Your task to perform on an android device: change alarm snooze length Image 0: 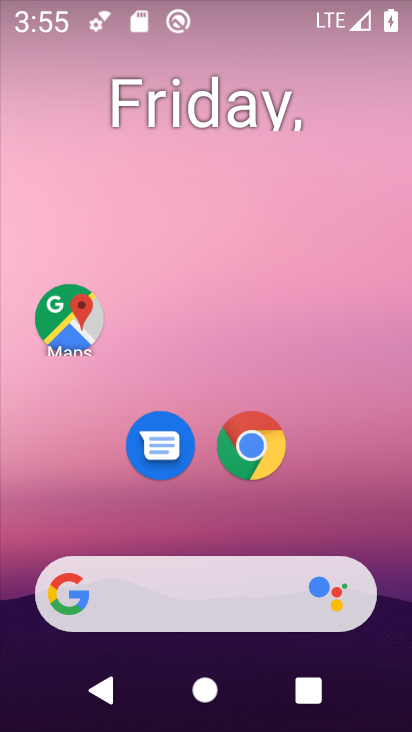
Step 0: drag from (399, 594) to (351, 293)
Your task to perform on an android device: change alarm snooze length Image 1: 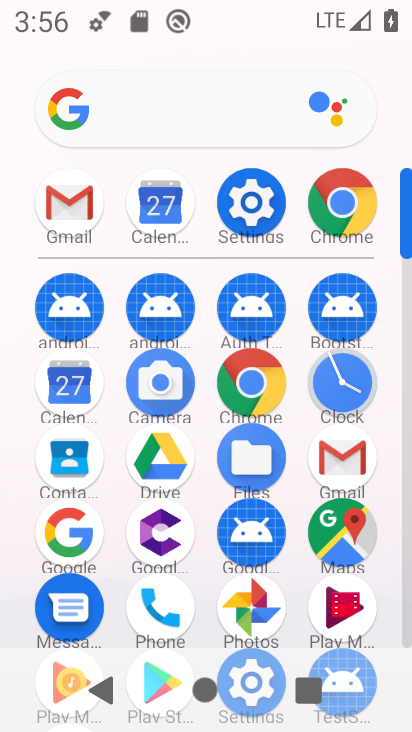
Step 1: click (345, 390)
Your task to perform on an android device: change alarm snooze length Image 2: 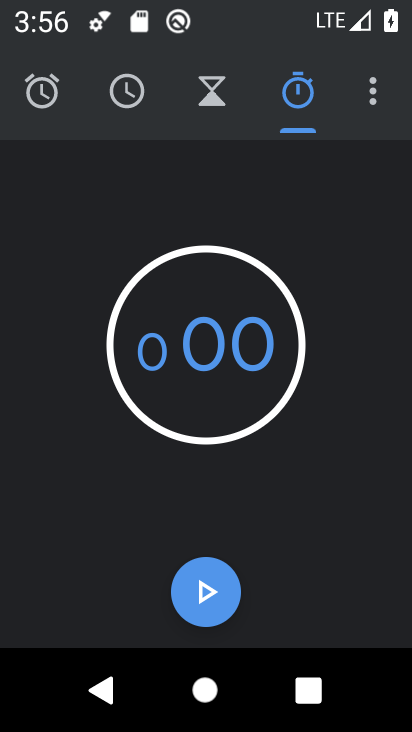
Step 2: click (383, 95)
Your task to perform on an android device: change alarm snooze length Image 3: 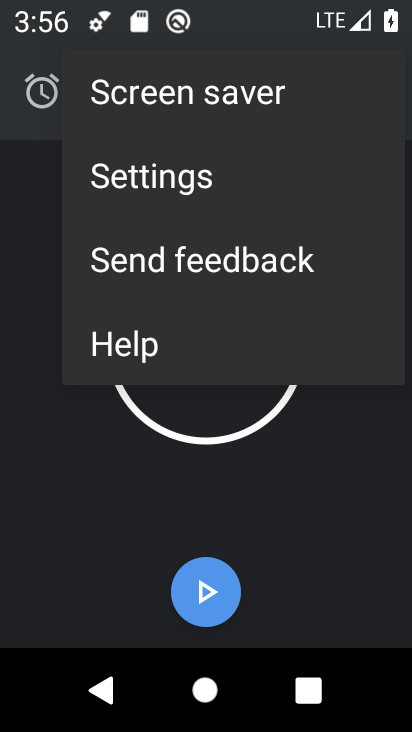
Step 3: click (290, 169)
Your task to perform on an android device: change alarm snooze length Image 4: 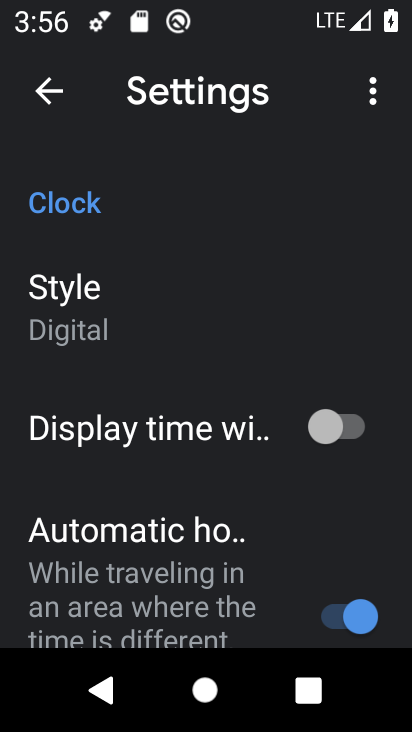
Step 4: drag from (160, 637) to (115, 112)
Your task to perform on an android device: change alarm snooze length Image 5: 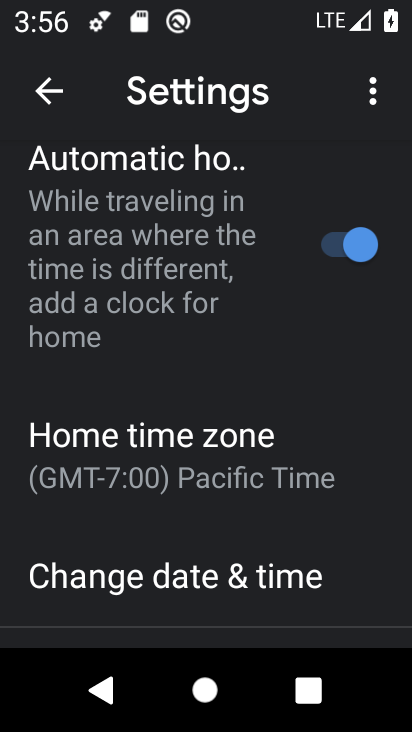
Step 5: drag from (165, 617) to (140, 247)
Your task to perform on an android device: change alarm snooze length Image 6: 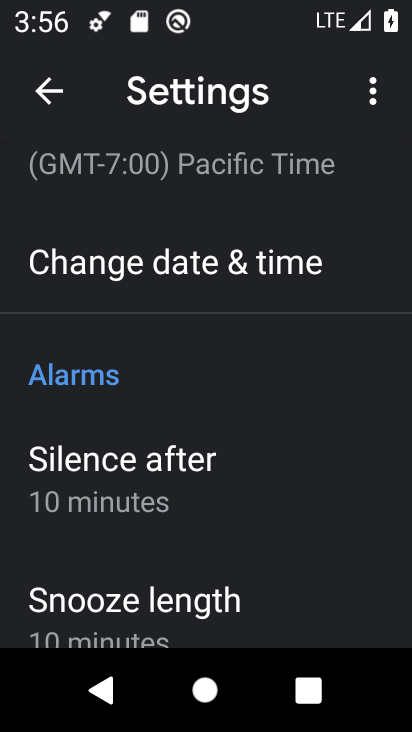
Step 6: drag from (167, 575) to (125, 302)
Your task to perform on an android device: change alarm snooze length Image 7: 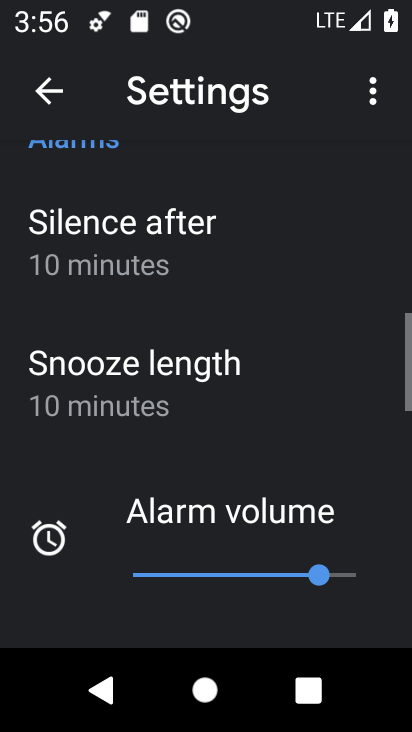
Step 7: click (137, 432)
Your task to perform on an android device: change alarm snooze length Image 8: 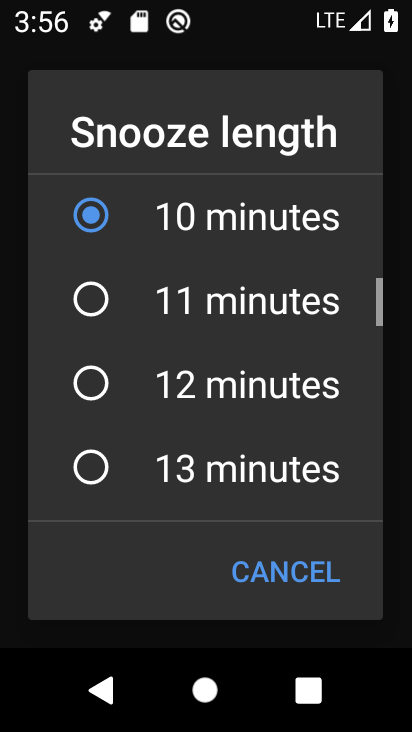
Step 8: click (171, 461)
Your task to perform on an android device: change alarm snooze length Image 9: 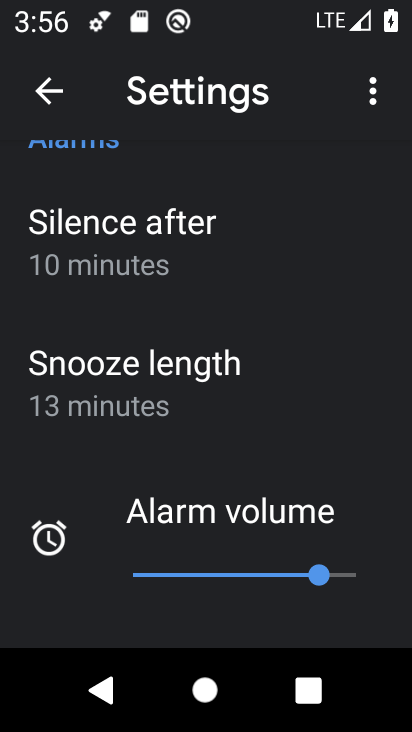
Step 9: task complete